Your task to perform on an android device: set the timer Image 0: 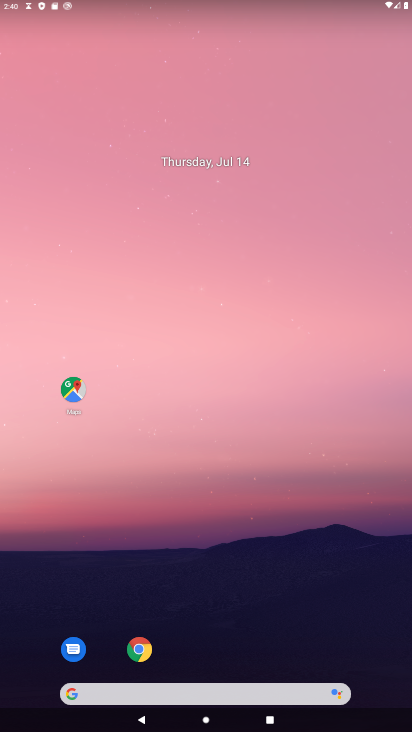
Step 0: drag from (216, 538) to (236, 5)
Your task to perform on an android device: set the timer Image 1: 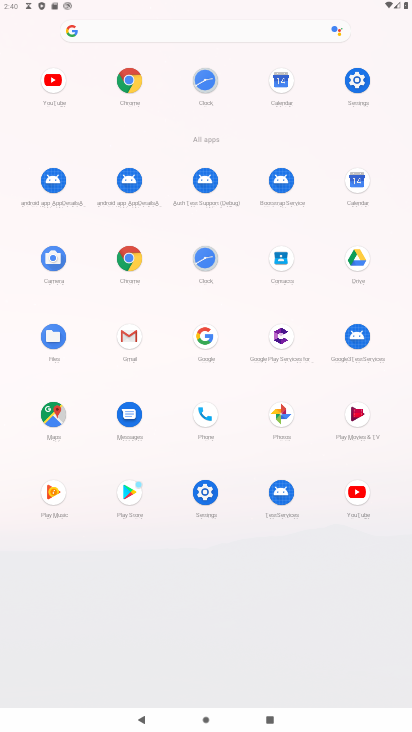
Step 1: click (214, 262)
Your task to perform on an android device: set the timer Image 2: 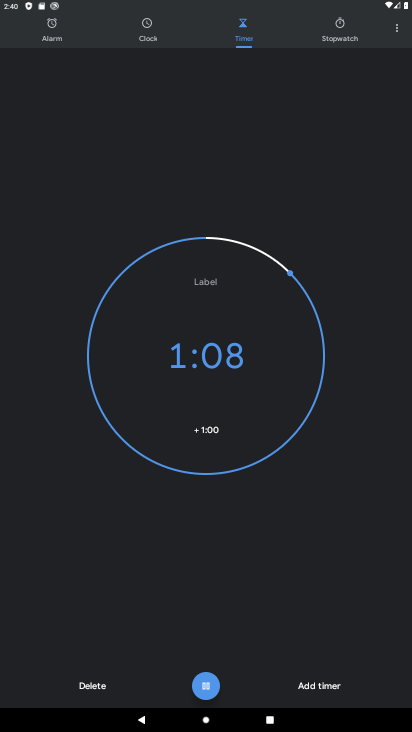
Step 2: click (78, 683)
Your task to perform on an android device: set the timer Image 3: 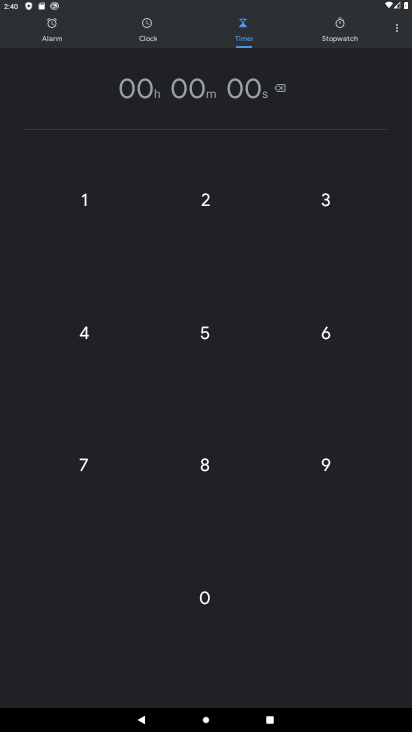
Step 3: click (77, 468)
Your task to perform on an android device: set the timer Image 4: 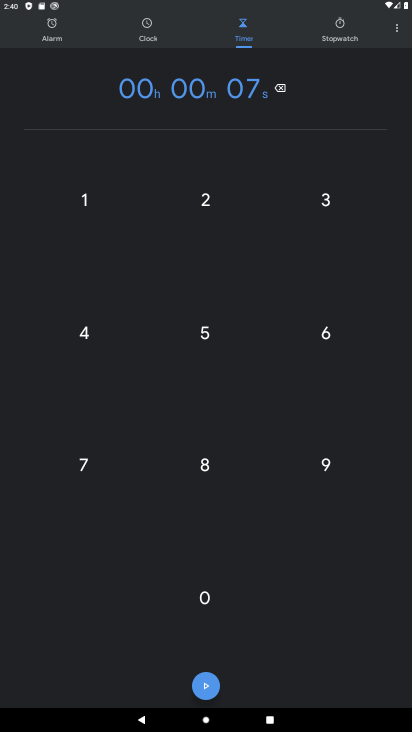
Step 4: click (222, 315)
Your task to perform on an android device: set the timer Image 5: 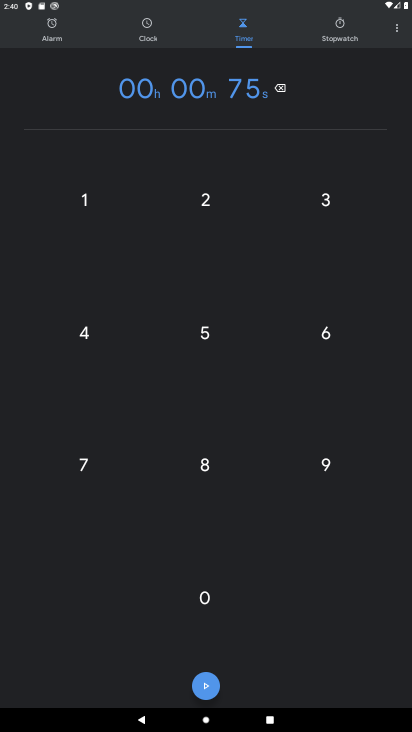
Step 5: click (329, 216)
Your task to perform on an android device: set the timer Image 6: 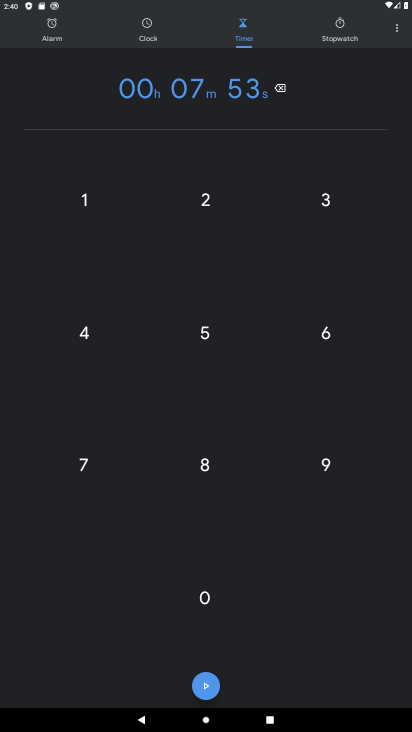
Step 6: click (210, 679)
Your task to perform on an android device: set the timer Image 7: 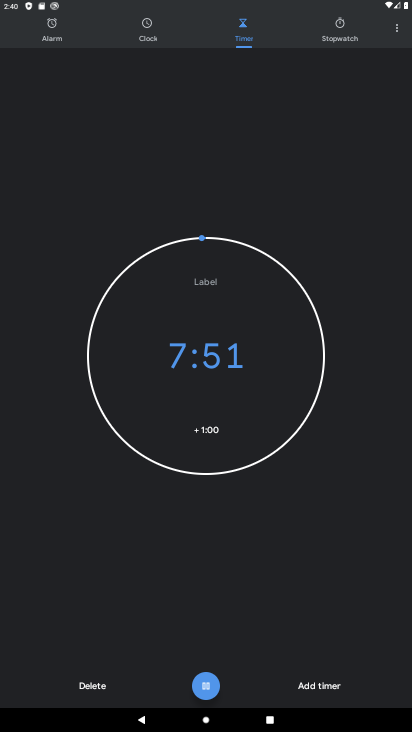
Step 7: task complete